Your task to perform on an android device: Open Yahoo.com Image 0: 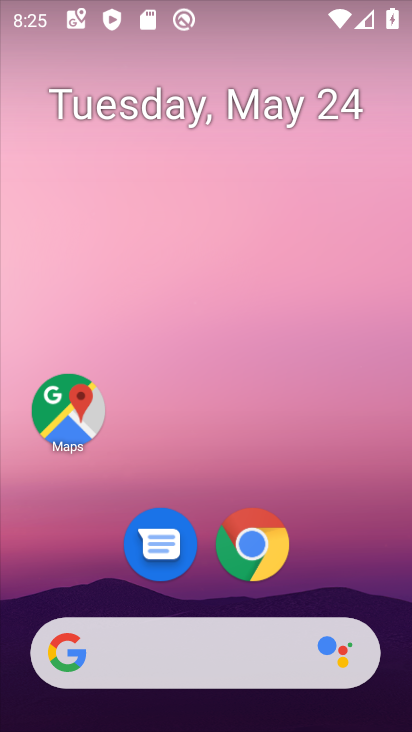
Step 0: click (239, 544)
Your task to perform on an android device: Open Yahoo.com Image 1: 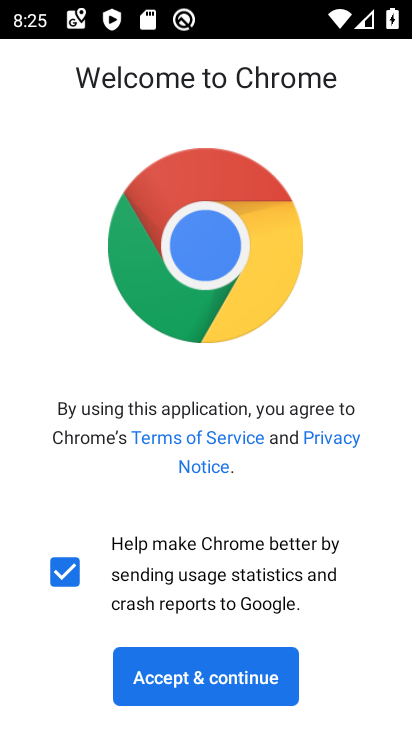
Step 1: click (235, 675)
Your task to perform on an android device: Open Yahoo.com Image 2: 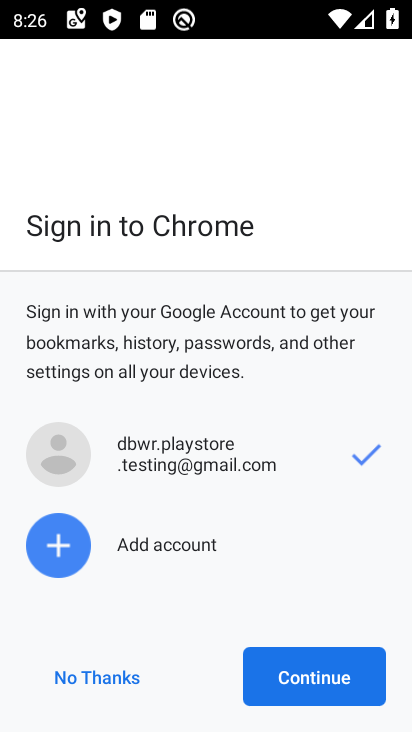
Step 2: click (272, 666)
Your task to perform on an android device: Open Yahoo.com Image 3: 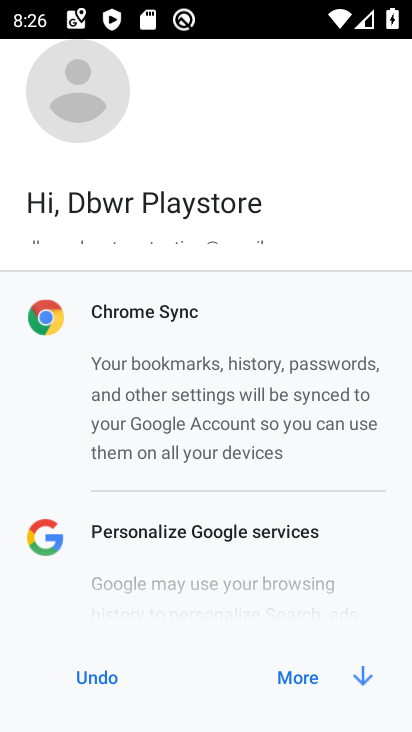
Step 3: click (291, 674)
Your task to perform on an android device: Open Yahoo.com Image 4: 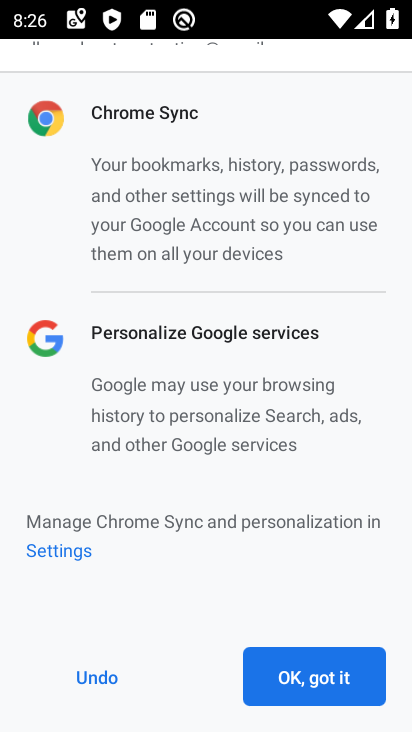
Step 4: click (291, 674)
Your task to perform on an android device: Open Yahoo.com Image 5: 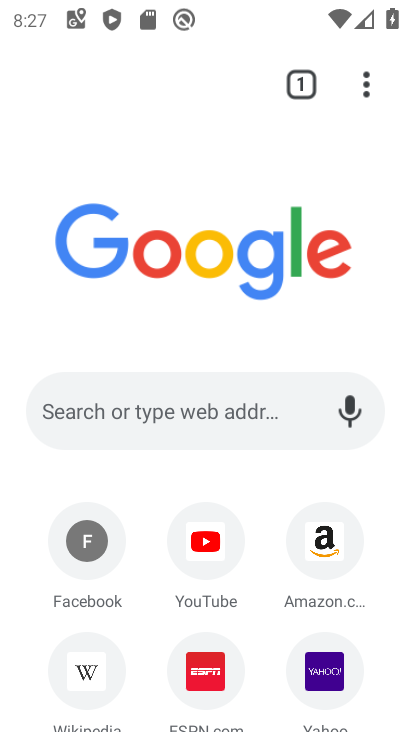
Step 5: click (334, 660)
Your task to perform on an android device: Open Yahoo.com Image 6: 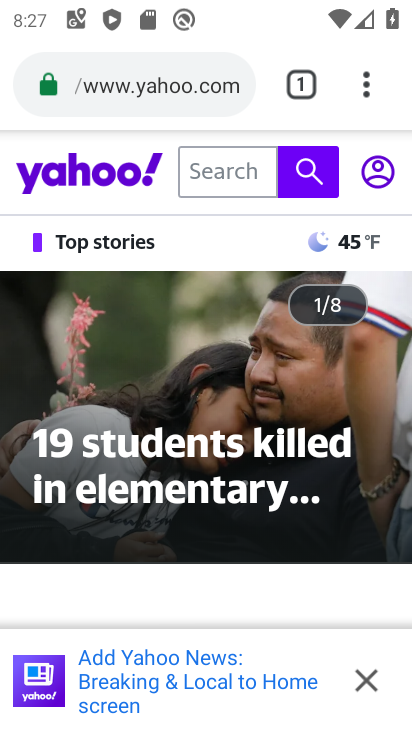
Step 6: task complete